Your task to perform on an android device: Do I have any events tomorrow? Image 0: 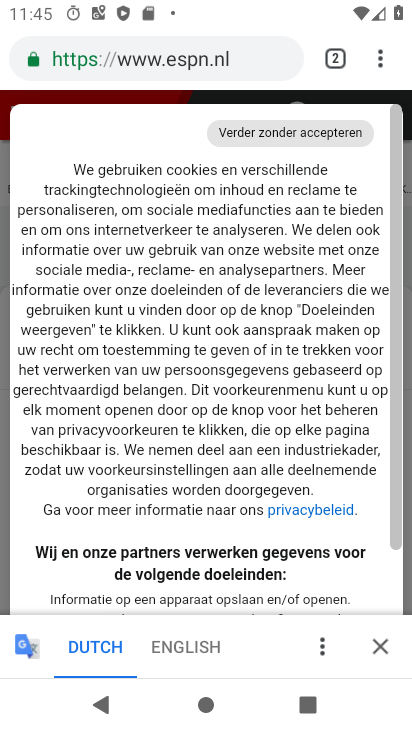
Step 0: press home button
Your task to perform on an android device: Do I have any events tomorrow? Image 1: 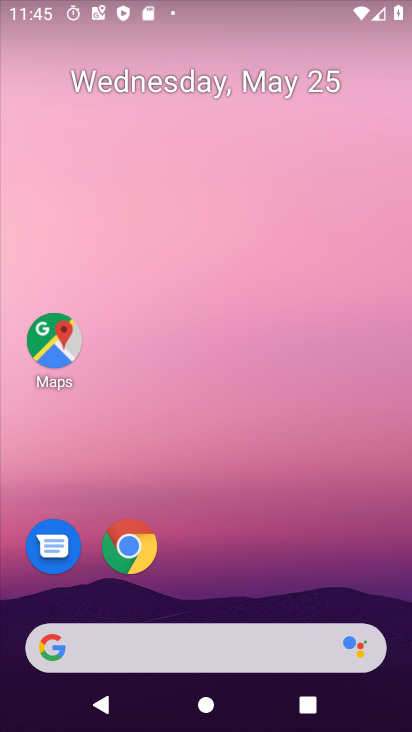
Step 1: drag from (208, 128) to (231, 0)
Your task to perform on an android device: Do I have any events tomorrow? Image 2: 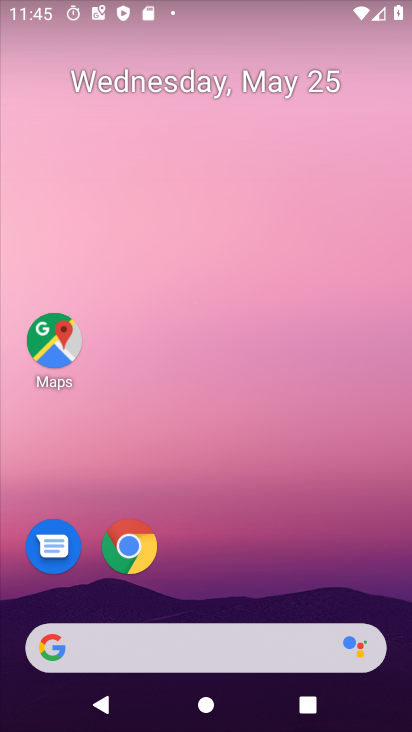
Step 2: drag from (225, 578) to (245, 12)
Your task to perform on an android device: Do I have any events tomorrow? Image 3: 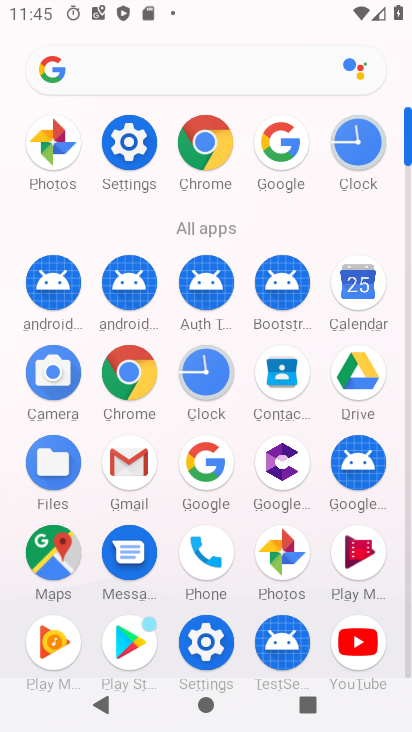
Step 3: click (340, 279)
Your task to perform on an android device: Do I have any events tomorrow? Image 4: 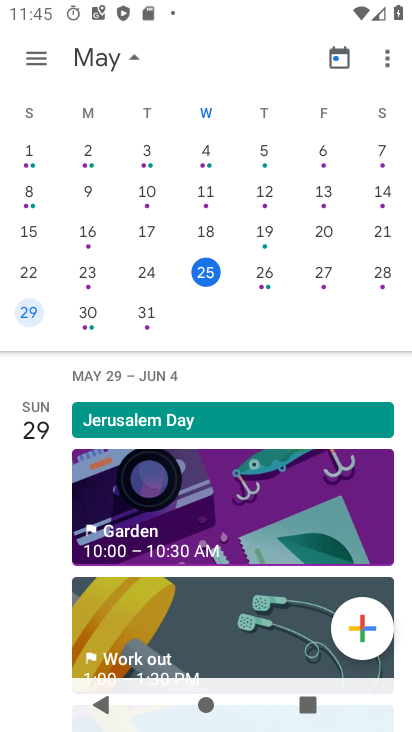
Step 4: click (267, 282)
Your task to perform on an android device: Do I have any events tomorrow? Image 5: 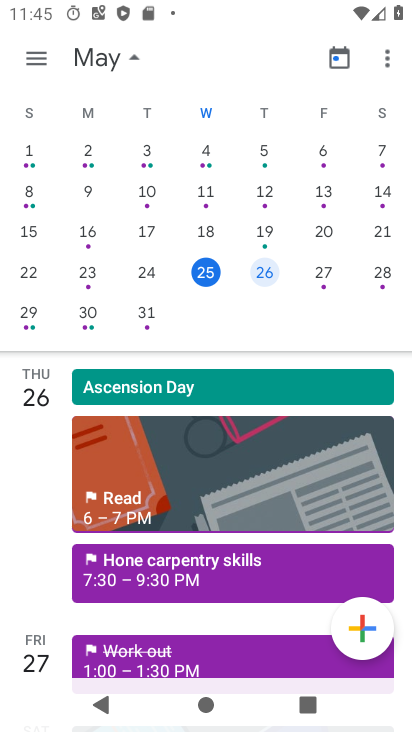
Step 5: task complete